Your task to perform on an android device: turn pop-ups off in chrome Image 0: 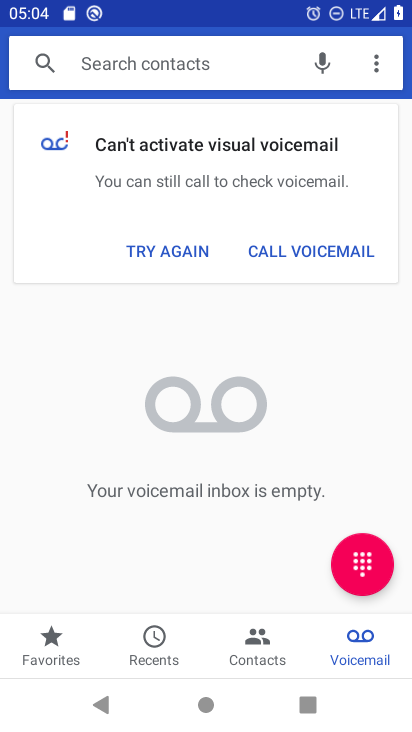
Step 0: press home button
Your task to perform on an android device: turn pop-ups off in chrome Image 1: 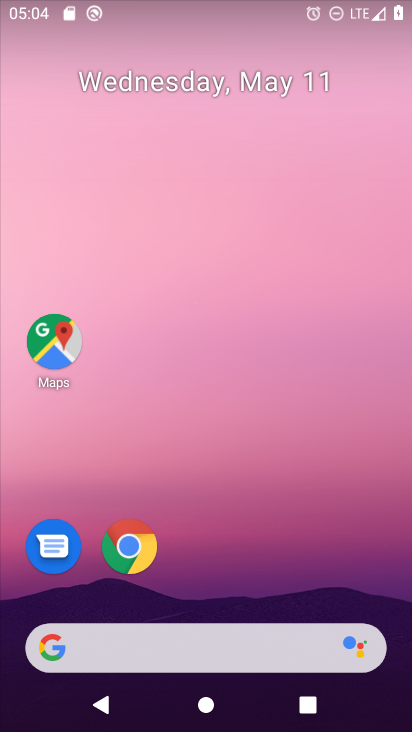
Step 1: drag from (287, 614) to (371, 1)
Your task to perform on an android device: turn pop-ups off in chrome Image 2: 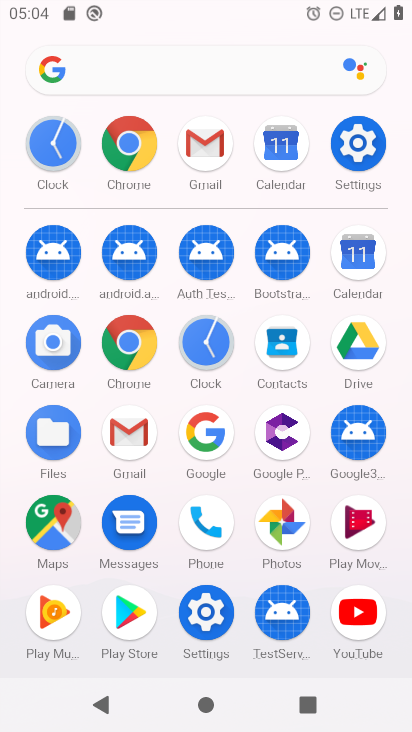
Step 2: click (126, 347)
Your task to perform on an android device: turn pop-ups off in chrome Image 3: 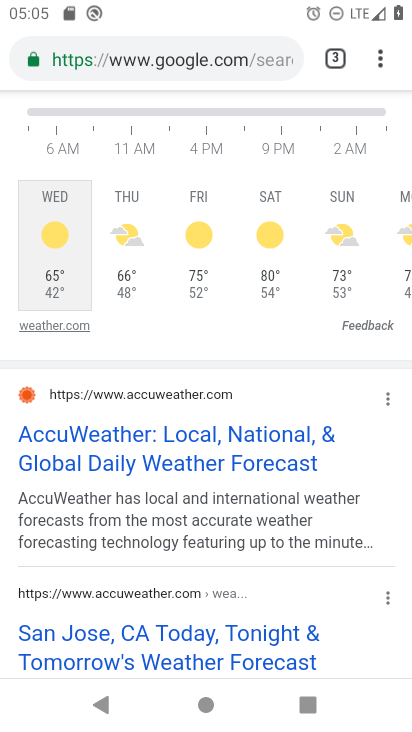
Step 3: drag from (385, 58) to (209, 568)
Your task to perform on an android device: turn pop-ups off in chrome Image 4: 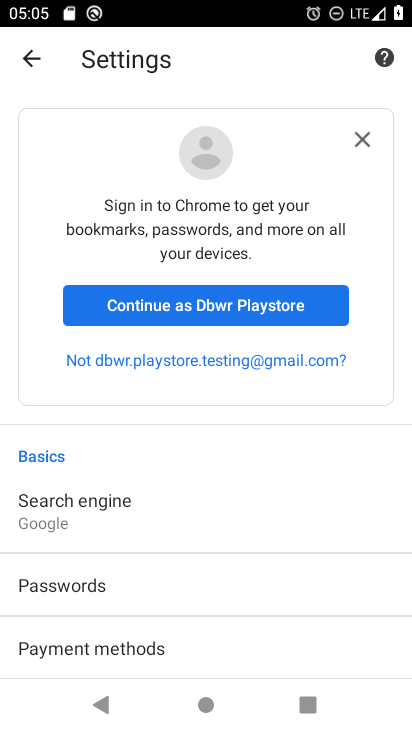
Step 4: drag from (183, 612) to (207, 76)
Your task to perform on an android device: turn pop-ups off in chrome Image 5: 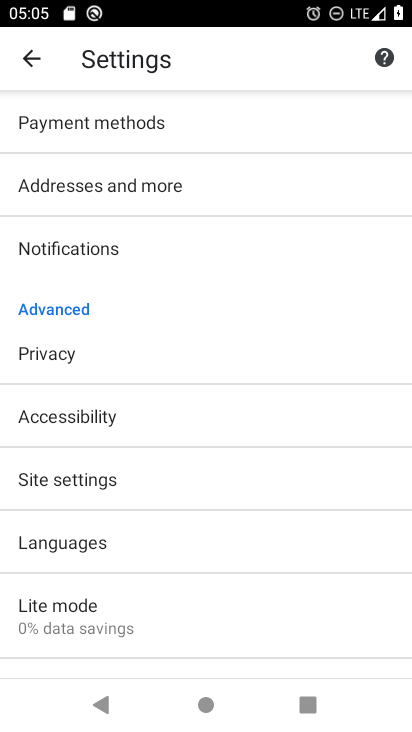
Step 5: click (125, 483)
Your task to perform on an android device: turn pop-ups off in chrome Image 6: 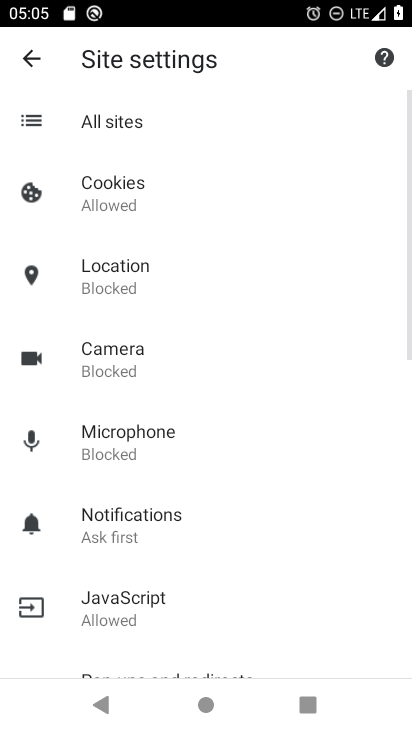
Step 6: drag from (232, 630) to (262, 388)
Your task to perform on an android device: turn pop-ups off in chrome Image 7: 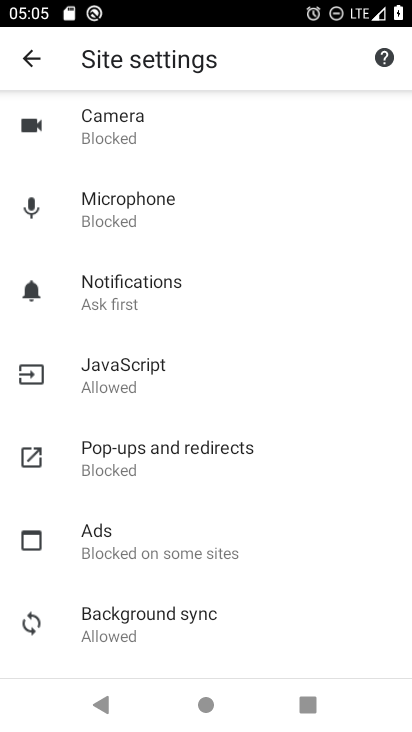
Step 7: click (225, 455)
Your task to perform on an android device: turn pop-ups off in chrome Image 8: 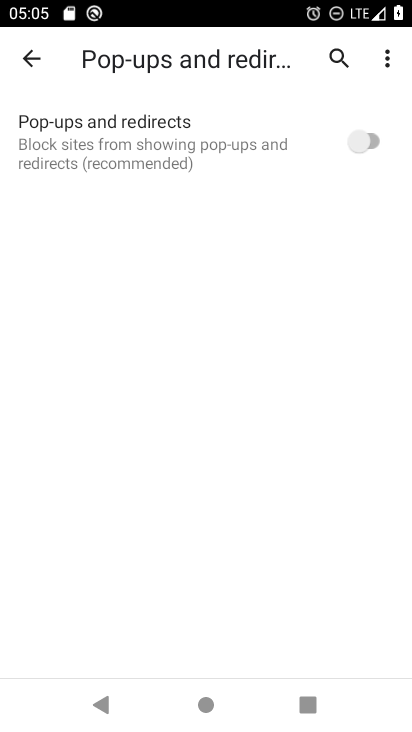
Step 8: click (375, 140)
Your task to perform on an android device: turn pop-ups off in chrome Image 9: 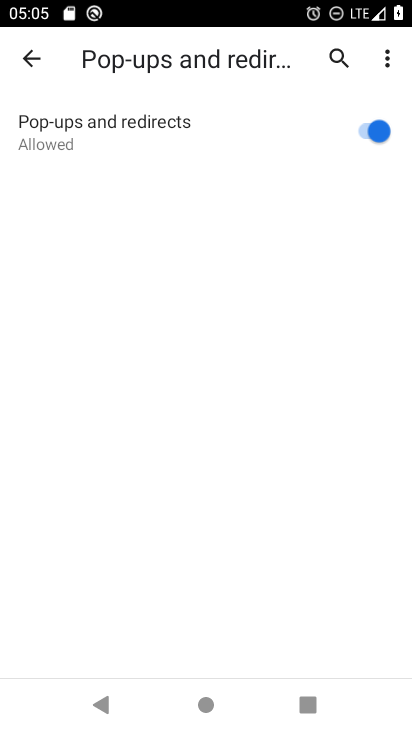
Step 9: click (366, 131)
Your task to perform on an android device: turn pop-ups off in chrome Image 10: 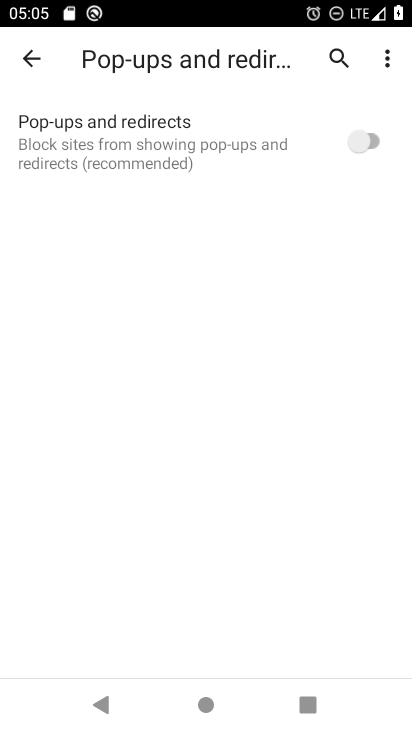
Step 10: task complete